Your task to perform on an android device: Play the last video I watched on Youtube Image 0: 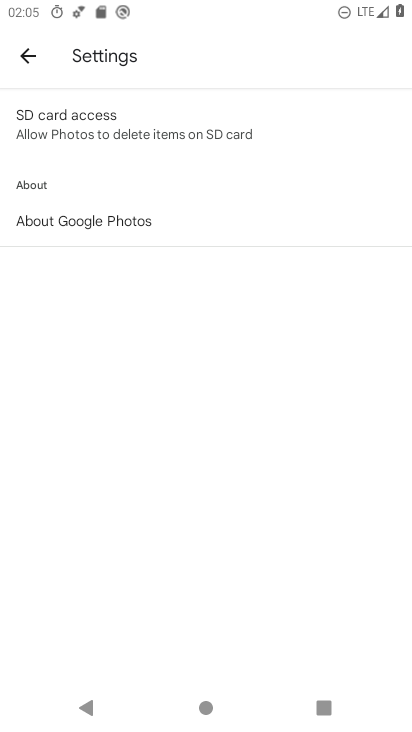
Step 0: click (208, 707)
Your task to perform on an android device: Play the last video I watched on Youtube Image 1: 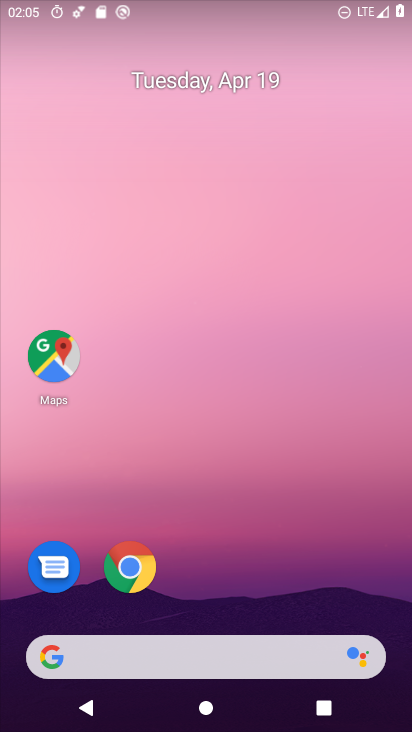
Step 1: drag from (232, 483) to (215, 125)
Your task to perform on an android device: Play the last video I watched on Youtube Image 2: 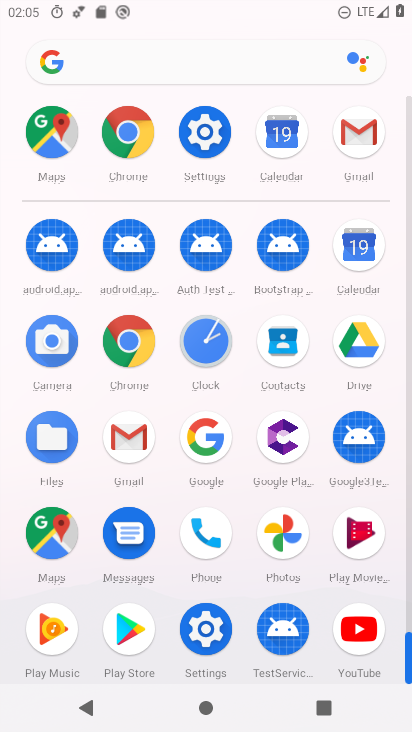
Step 2: click (365, 635)
Your task to perform on an android device: Play the last video I watched on Youtube Image 3: 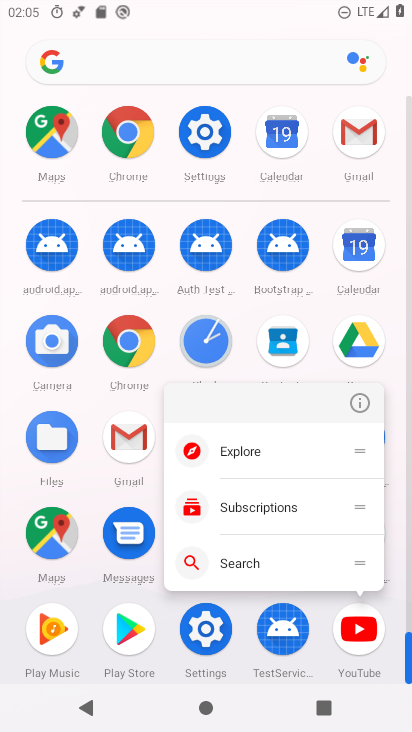
Step 3: click (364, 636)
Your task to perform on an android device: Play the last video I watched on Youtube Image 4: 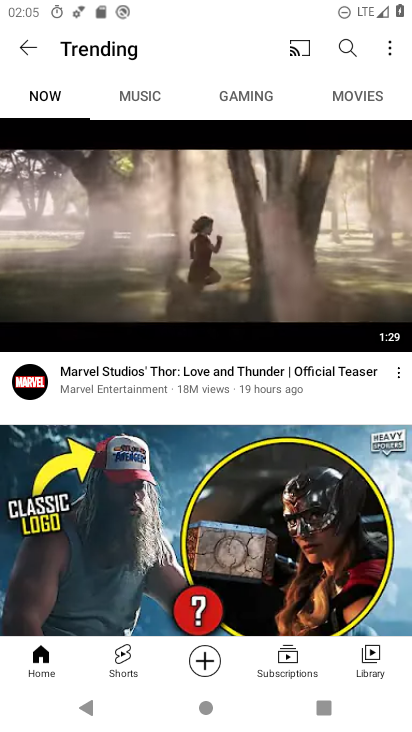
Step 4: click (377, 658)
Your task to perform on an android device: Play the last video I watched on Youtube Image 5: 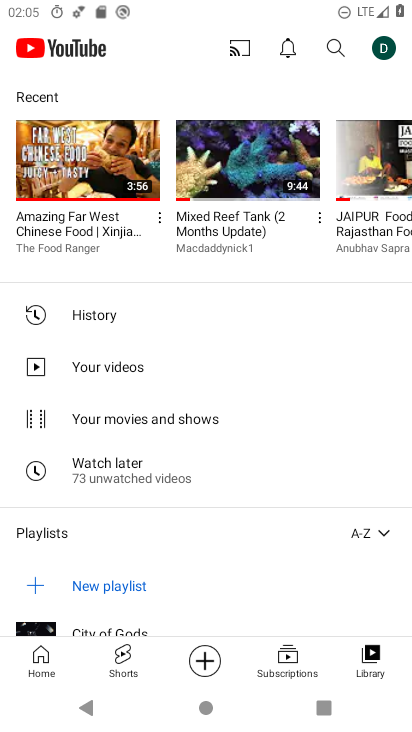
Step 5: click (112, 310)
Your task to perform on an android device: Play the last video I watched on Youtube Image 6: 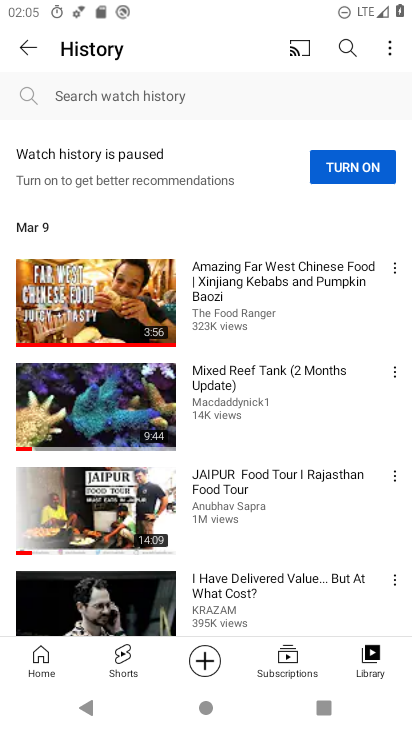
Step 6: click (128, 290)
Your task to perform on an android device: Play the last video I watched on Youtube Image 7: 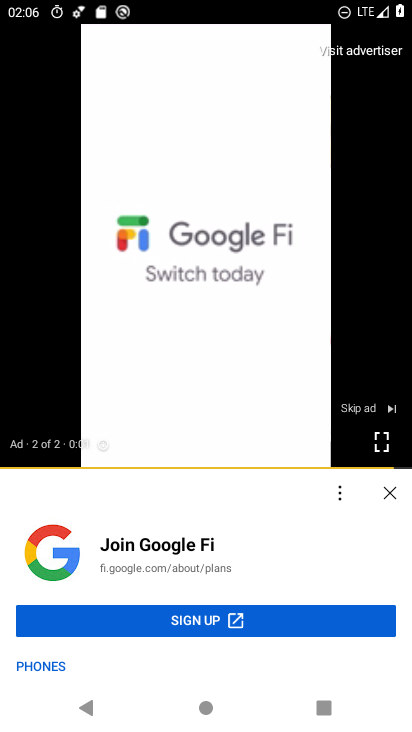
Step 7: click (353, 412)
Your task to perform on an android device: Play the last video I watched on Youtube Image 8: 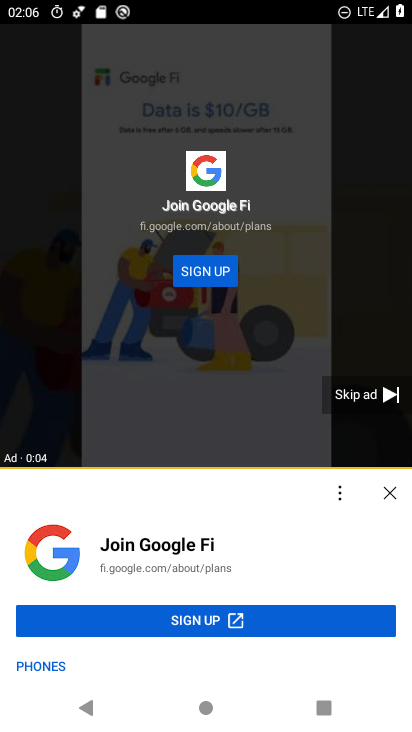
Step 8: click (354, 398)
Your task to perform on an android device: Play the last video I watched on Youtube Image 9: 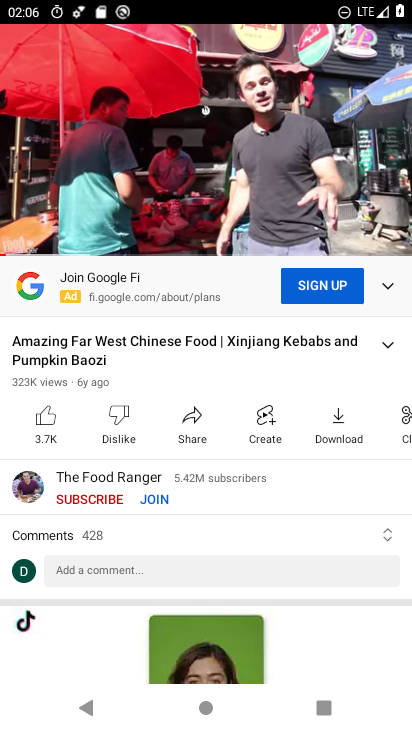
Step 9: task complete